Your task to perform on an android device: Open CNN.com Image 0: 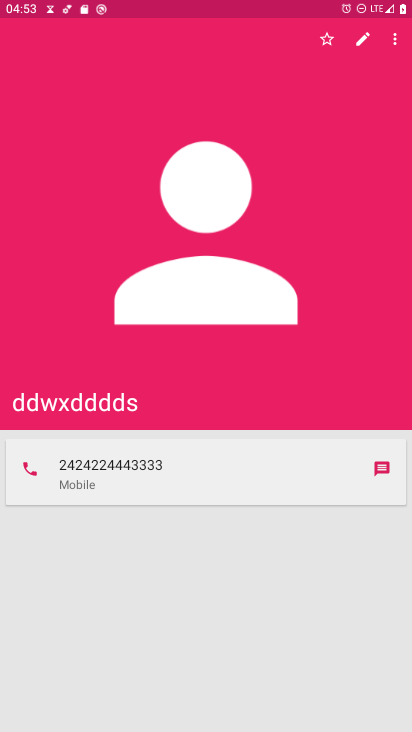
Step 0: press home button
Your task to perform on an android device: Open CNN.com Image 1: 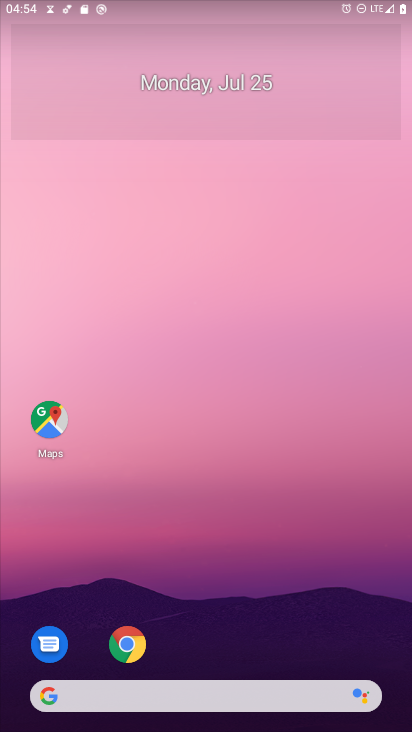
Step 1: click (42, 690)
Your task to perform on an android device: Open CNN.com Image 2: 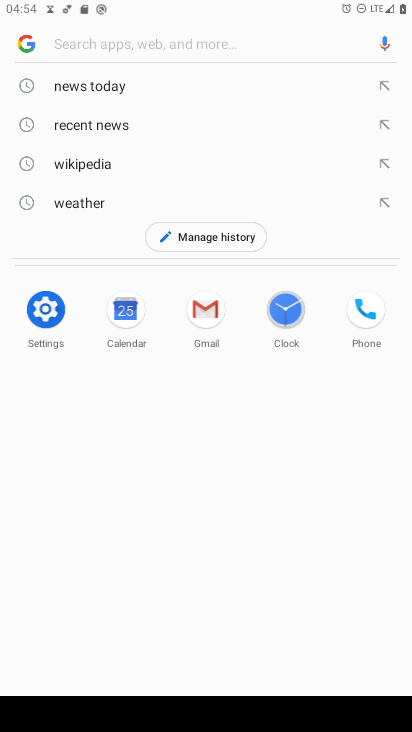
Step 2: click (77, 47)
Your task to perform on an android device: Open CNN.com Image 3: 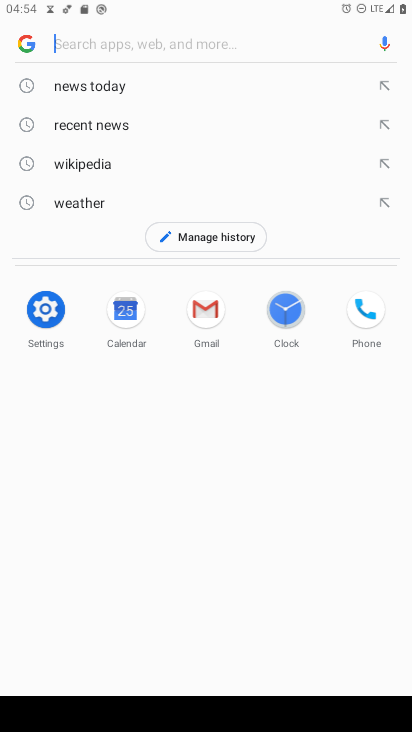
Step 3: type "CNN.com"
Your task to perform on an android device: Open CNN.com Image 4: 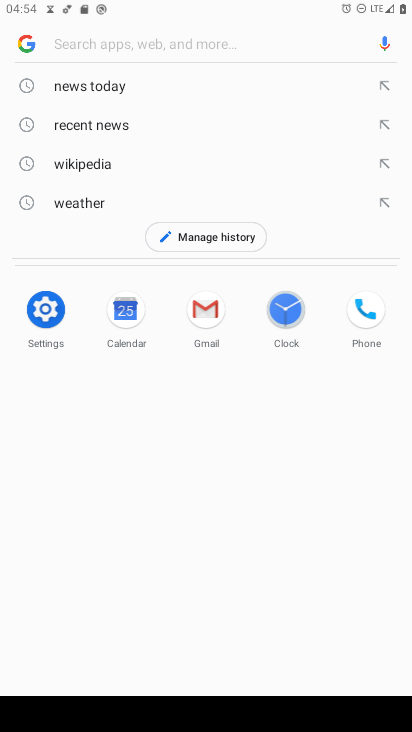
Step 4: click (88, 40)
Your task to perform on an android device: Open CNN.com Image 5: 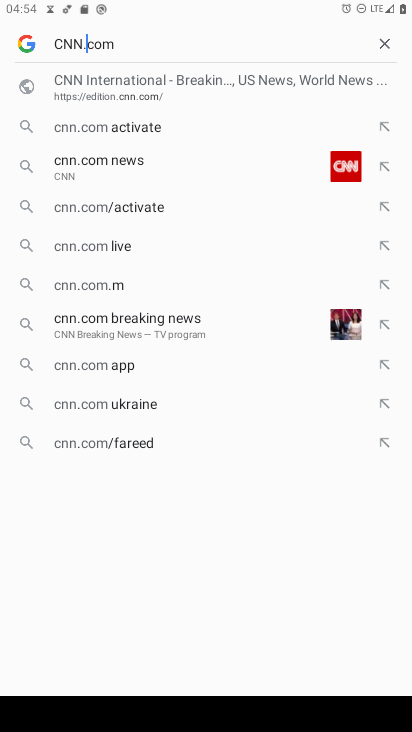
Step 5: click (331, 166)
Your task to perform on an android device: Open CNN.com Image 6: 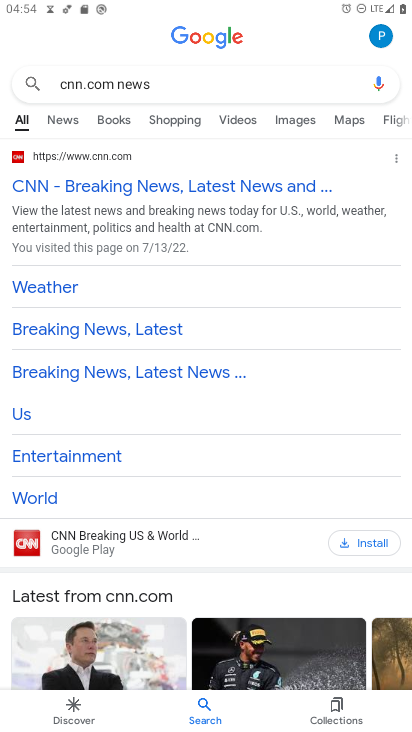
Step 6: click (126, 187)
Your task to perform on an android device: Open CNN.com Image 7: 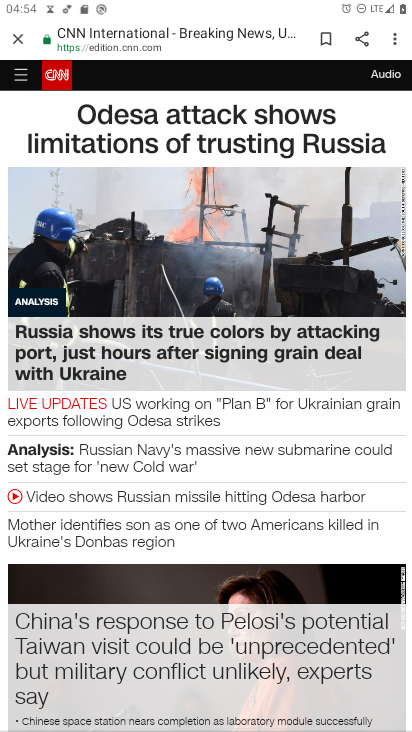
Step 7: task complete